Your task to perform on an android device: Do I have any events today? Image 0: 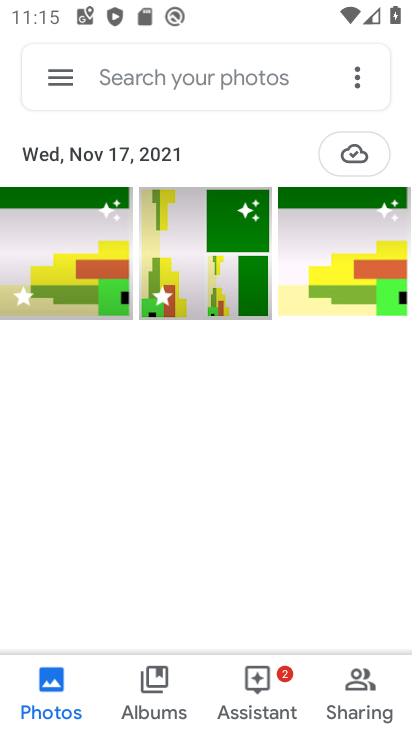
Step 0: press home button
Your task to perform on an android device: Do I have any events today? Image 1: 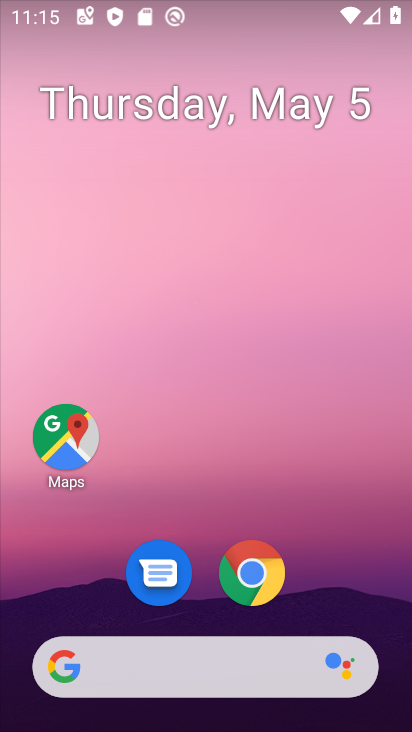
Step 1: drag from (317, 546) to (331, 241)
Your task to perform on an android device: Do I have any events today? Image 2: 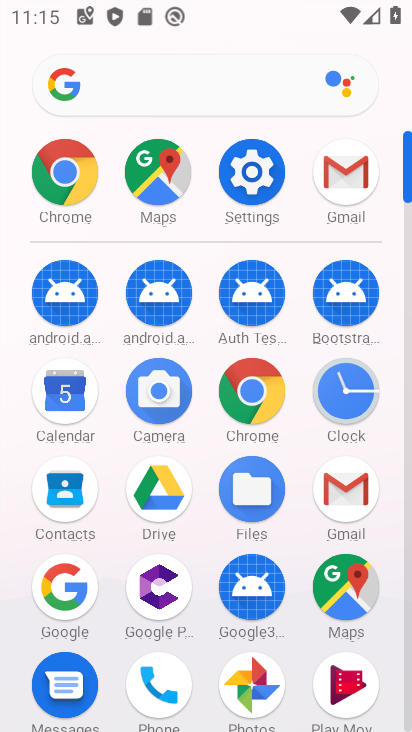
Step 2: click (55, 392)
Your task to perform on an android device: Do I have any events today? Image 3: 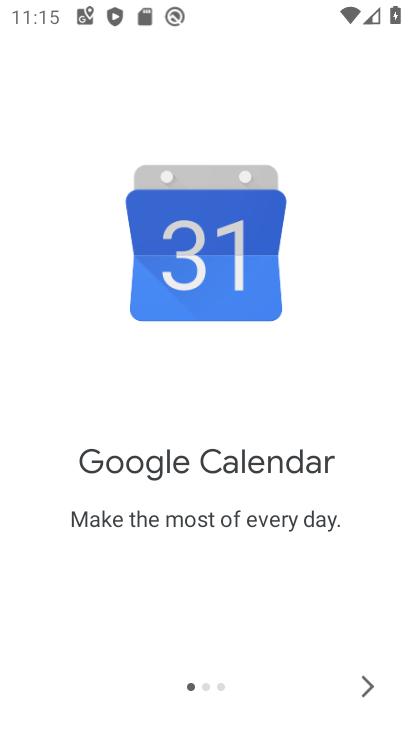
Step 3: click (366, 691)
Your task to perform on an android device: Do I have any events today? Image 4: 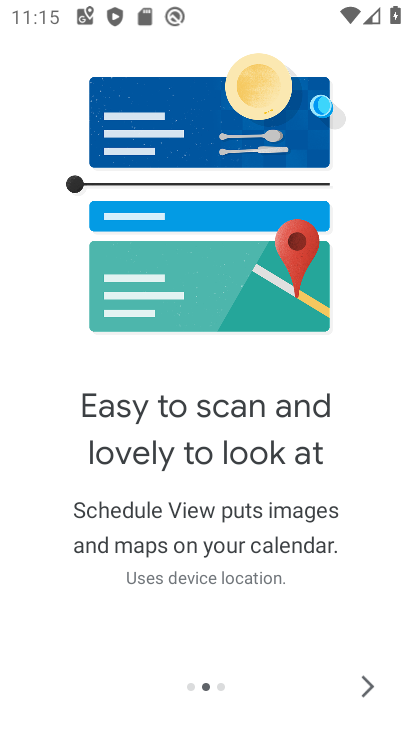
Step 4: click (366, 691)
Your task to perform on an android device: Do I have any events today? Image 5: 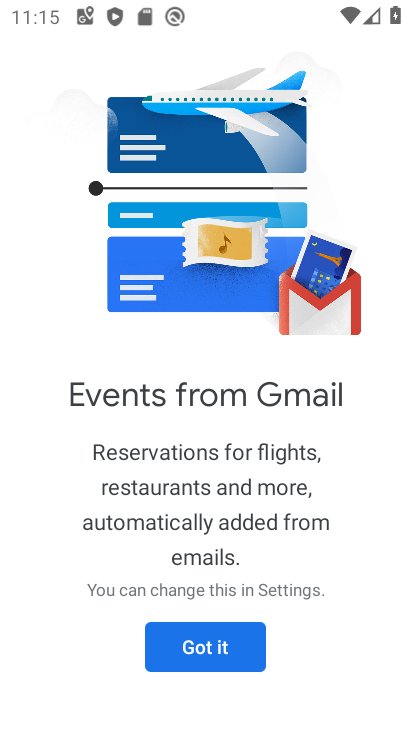
Step 5: click (226, 659)
Your task to perform on an android device: Do I have any events today? Image 6: 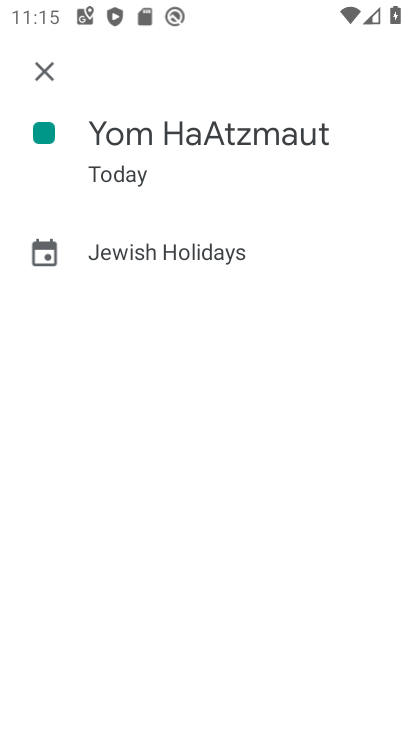
Step 6: click (43, 73)
Your task to perform on an android device: Do I have any events today? Image 7: 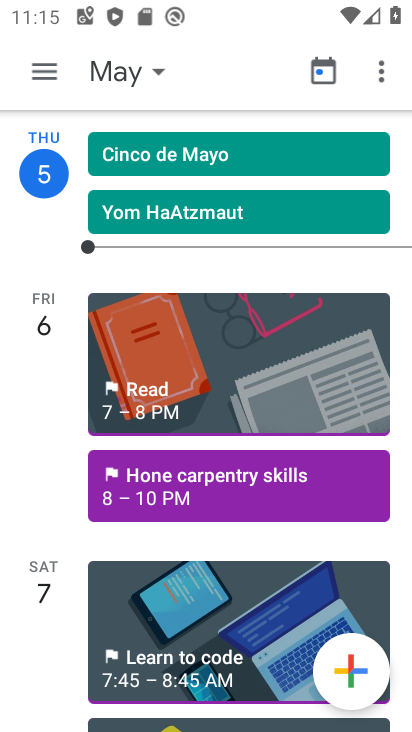
Step 7: click (52, 74)
Your task to perform on an android device: Do I have any events today? Image 8: 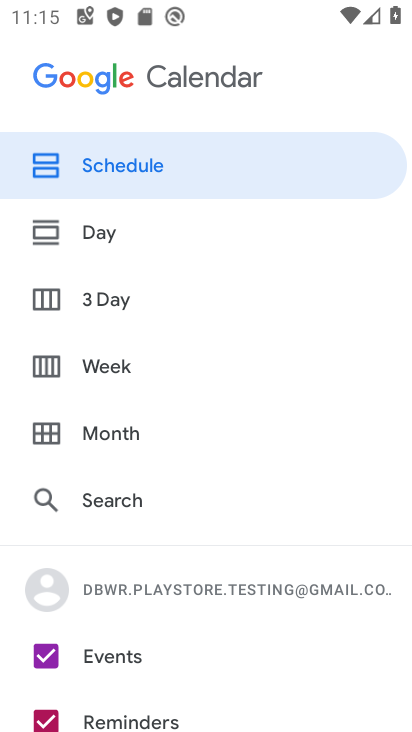
Step 8: click (111, 431)
Your task to perform on an android device: Do I have any events today? Image 9: 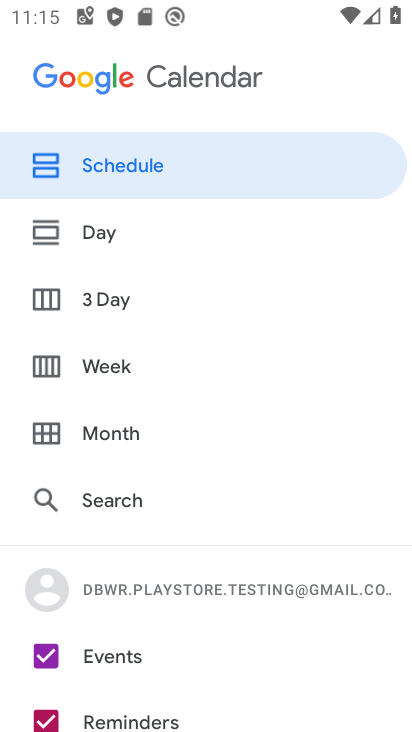
Step 9: click (102, 432)
Your task to perform on an android device: Do I have any events today? Image 10: 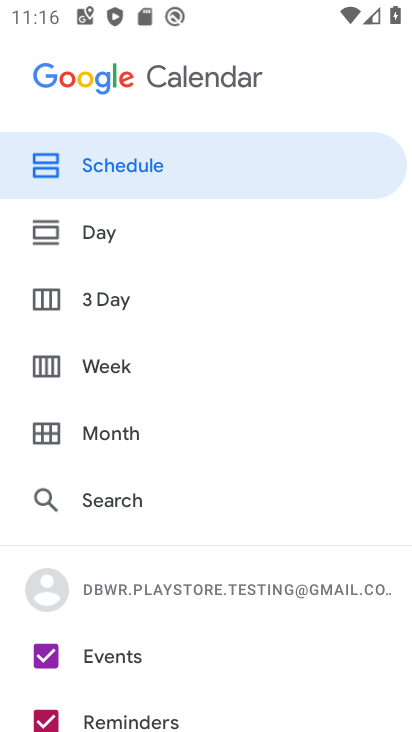
Step 10: click (102, 432)
Your task to perform on an android device: Do I have any events today? Image 11: 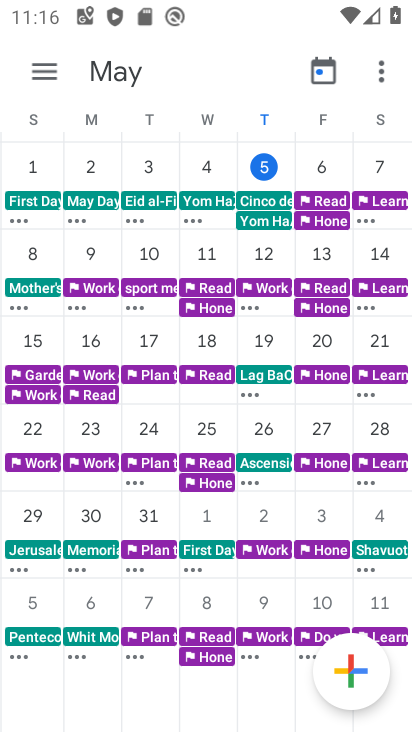
Step 11: click (271, 162)
Your task to perform on an android device: Do I have any events today? Image 12: 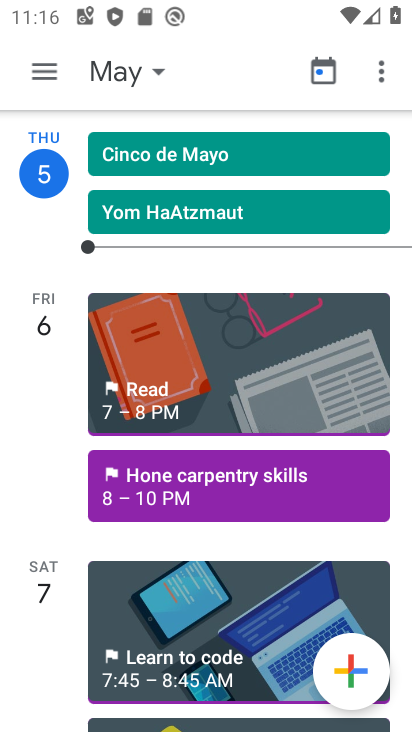
Step 12: task complete